Your task to perform on an android device: Go to notification settings Image 0: 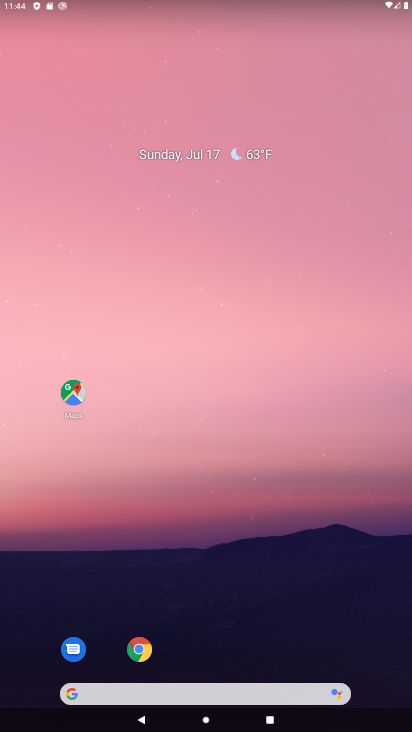
Step 0: drag from (265, 577) to (254, 5)
Your task to perform on an android device: Go to notification settings Image 1: 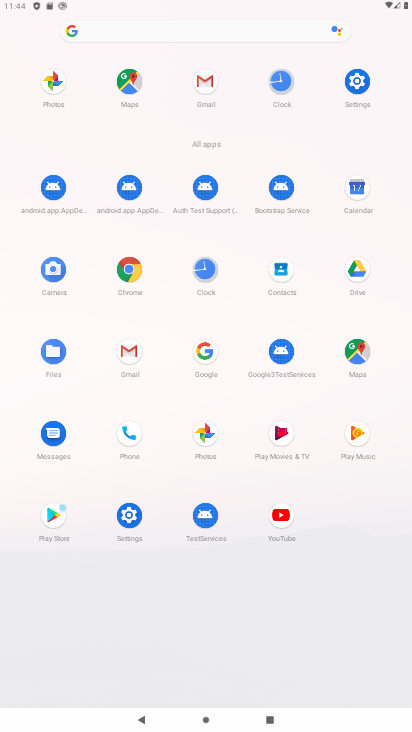
Step 1: click (362, 90)
Your task to perform on an android device: Go to notification settings Image 2: 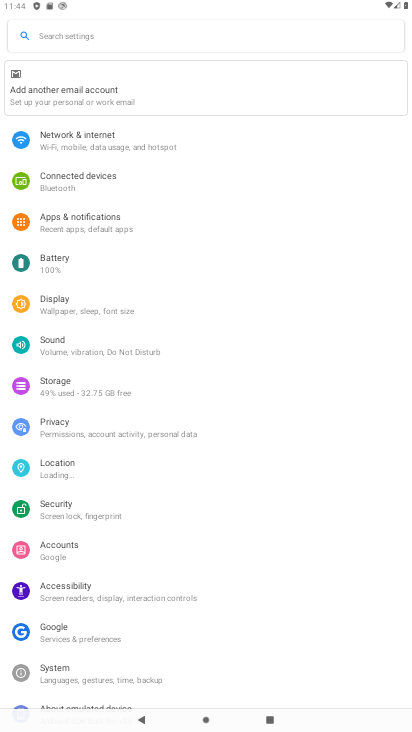
Step 2: click (129, 233)
Your task to perform on an android device: Go to notification settings Image 3: 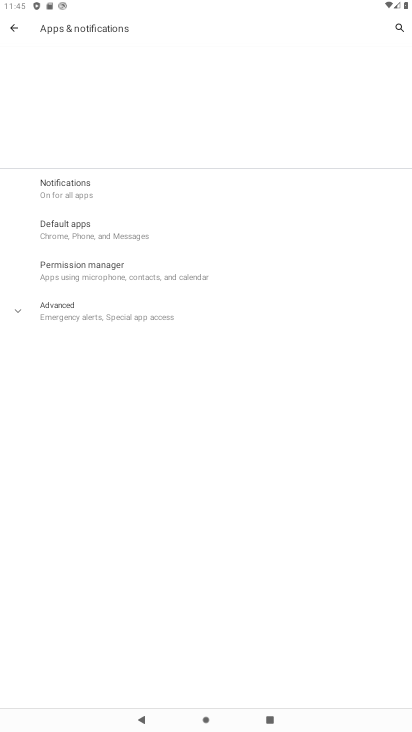
Step 3: click (58, 176)
Your task to perform on an android device: Go to notification settings Image 4: 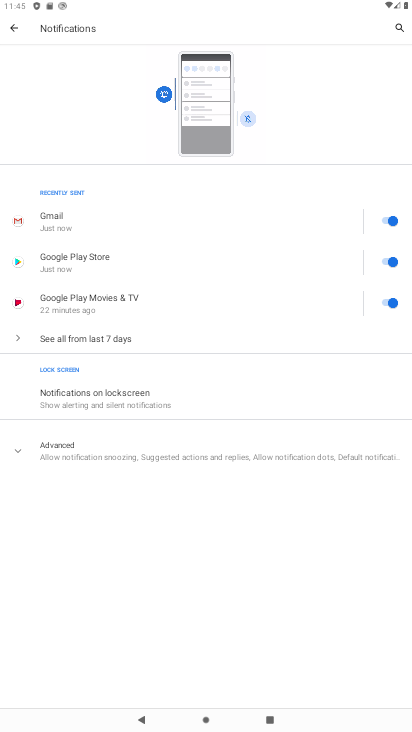
Step 4: task complete